Your task to perform on an android device: change the clock style Image 0: 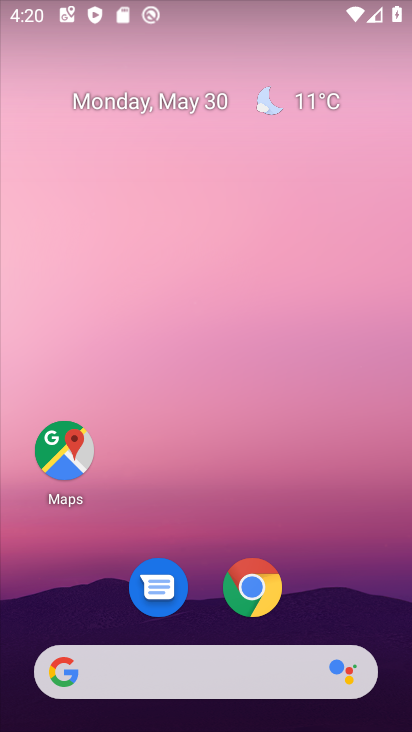
Step 0: drag from (334, 600) to (222, 103)
Your task to perform on an android device: change the clock style Image 1: 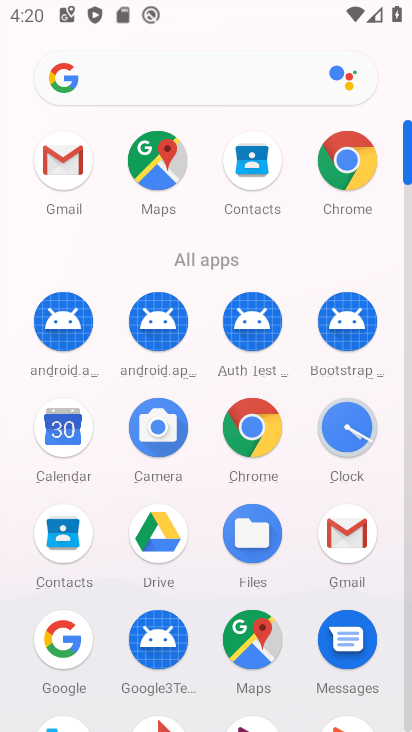
Step 1: click (371, 431)
Your task to perform on an android device: change the clock style Image 2: 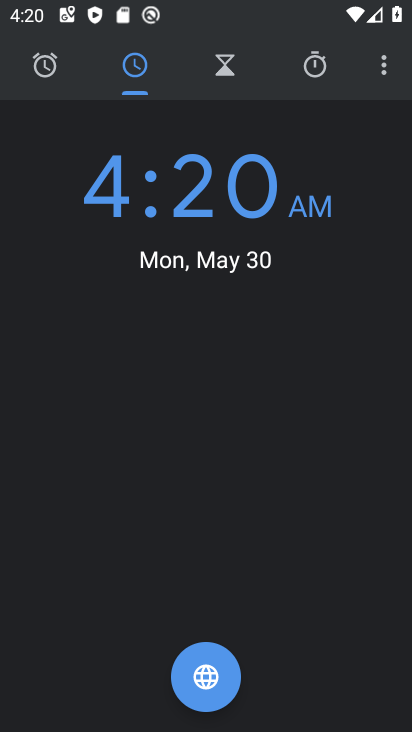
Step 2: click (374, 61)
Your task to perform on an android device: change the clock style Image 3: 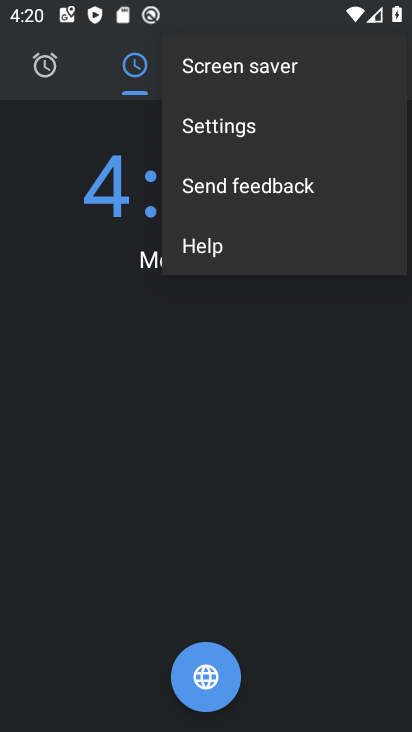
Step 3: click (257, 151)
Your task to perform on an android device: change the clock style Image 4: 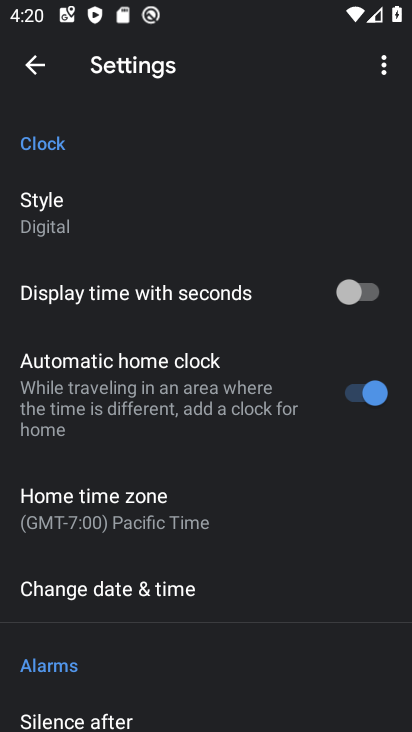
Step 4: click (74, 219)
Your task to perform on an android device: change the clock style Image 5: 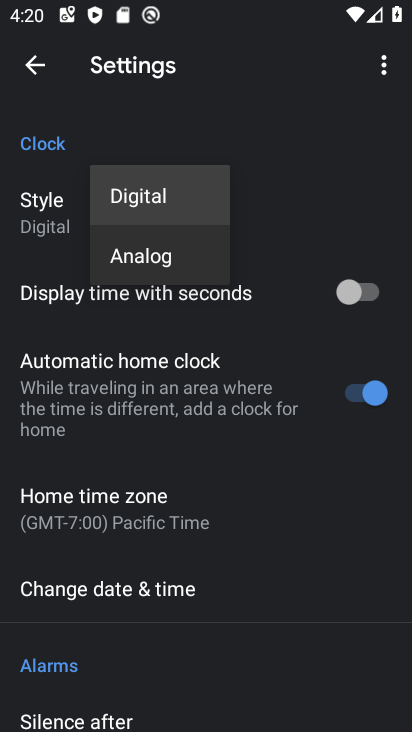
Step 5: click (125, 267)
Your task to perform on an android device: change the clock style Image 6: 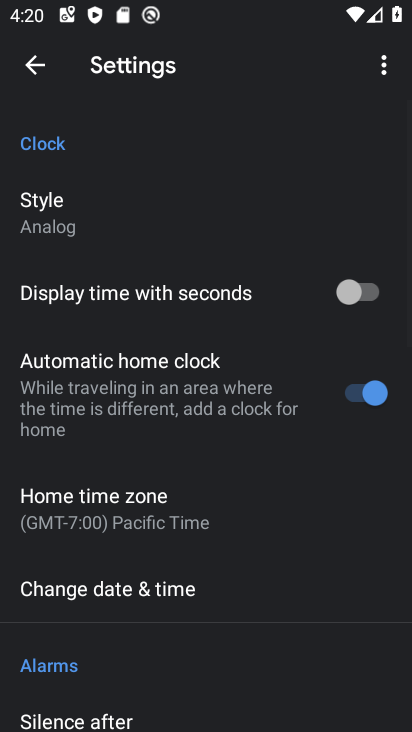
Step 6: task complete